Your task to perform on an android device: toggle notifications settings in the gmail app Image 0: 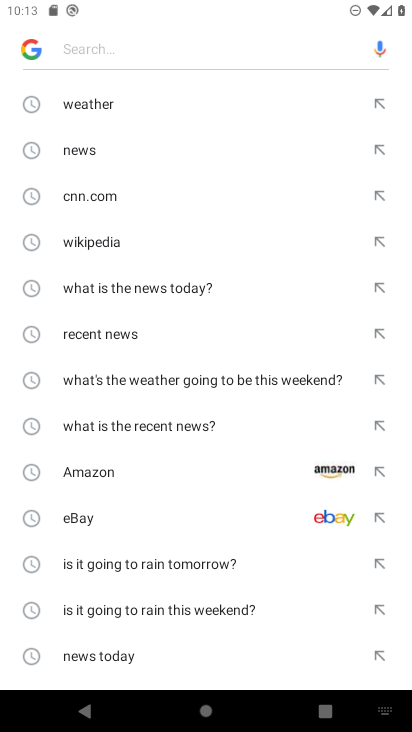
Step 0: press back button
Your task to perform on an android device: toggle notifications settings in the gmail app Image 1: 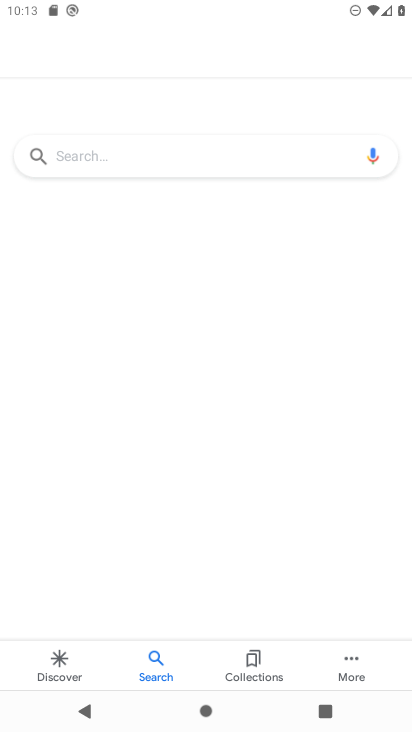
Step 1: press back button
Your task to perform on an android device: toggle notifications settings in the gmail app Image 2: 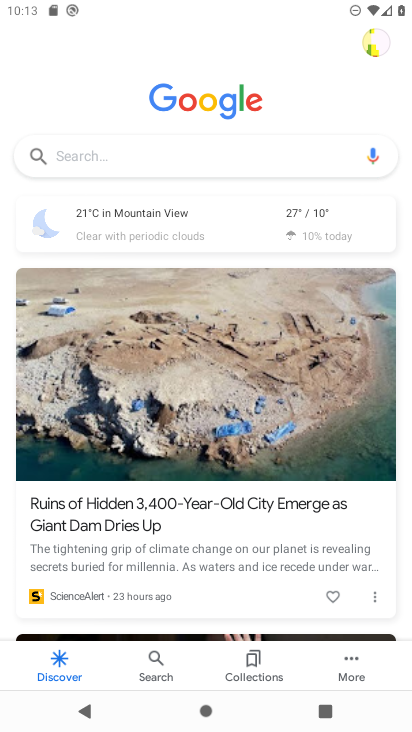
Step 2: press back button
Your task to perform on an android device: toggle notifications settings in the gmail app Image 3: 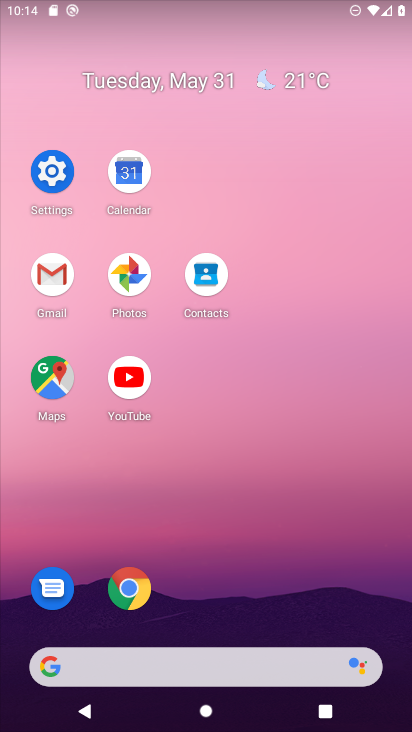
Step 3: click (49, 274)
Your task to perform on an android device: toggle notifications settings in the gmail app Image 4: 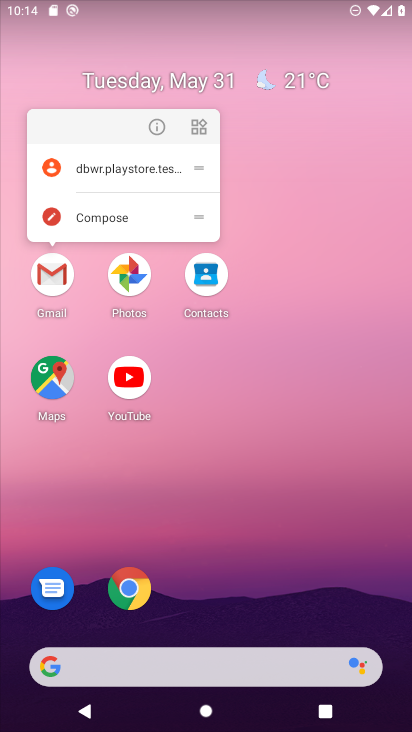
Step 4: click (49, 274)
Your task to perform on an android device: toggle notifications settings in the gmail app Image 5: 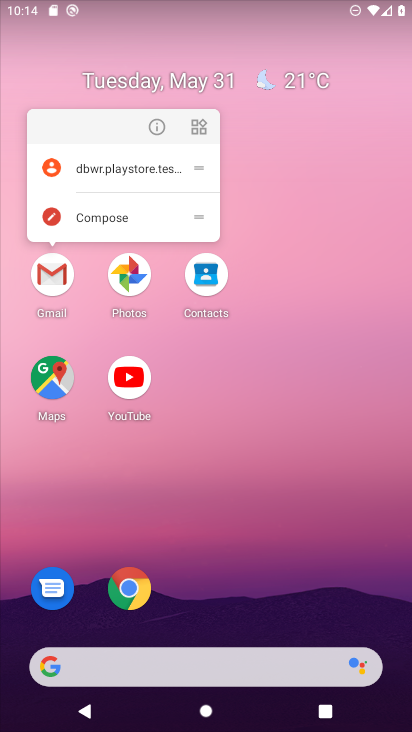
Step 5: click (53, 281)
Your task to perform on an android device: toggle notifications settings in the gmail app Image 6: 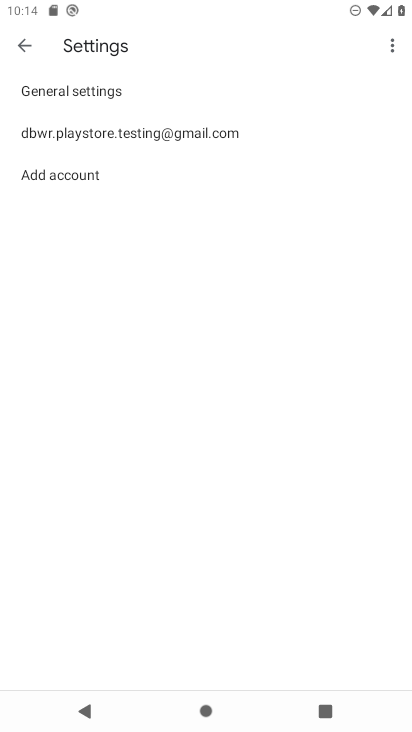
Step 6: click (27, 34)
Your task to perform on an android device: toggle notifications settings in the gmail app Image 7: 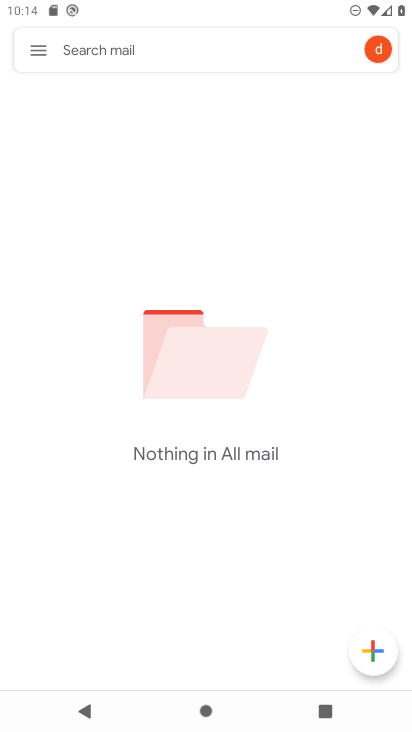
Step 7: click (25, 38)
Your task to perform on an android device: toggle notifications settings in the gmail app Image 8: 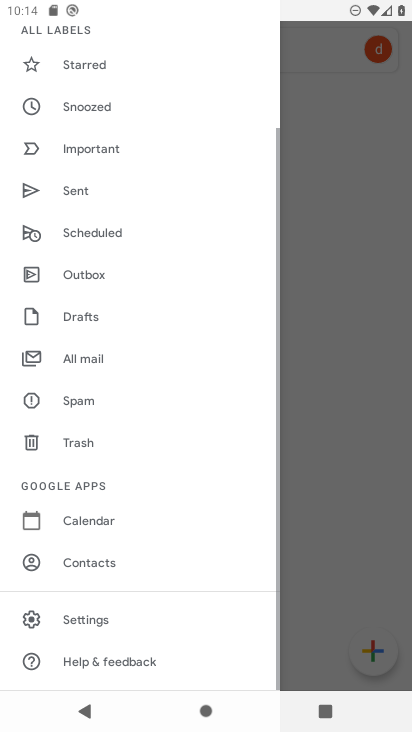
Step 8: drag from (191, 597) to (178, 258)
Your task to perform on an android device: toggle notifications settings in the gmail app Image 9: 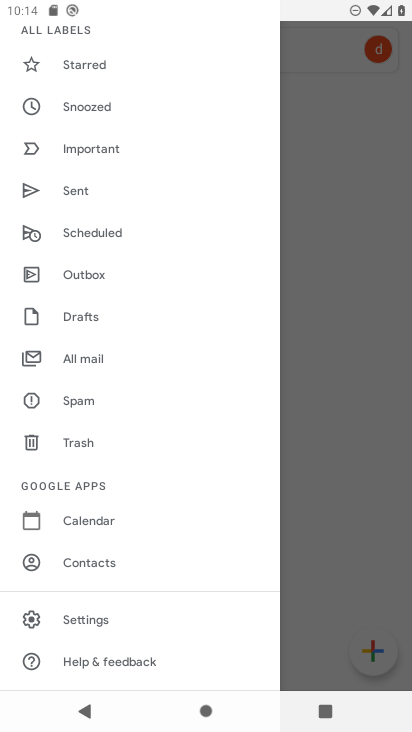
Step 9: click (97, 632)
Your task to perform on an android device: toggle notifications settings in the gmail app Image 10: 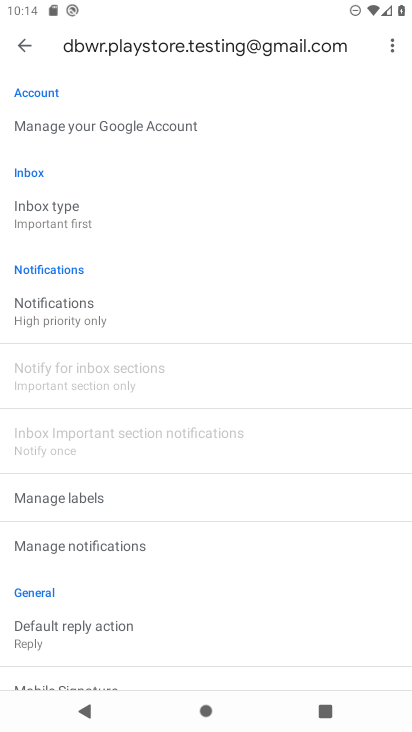
Step 10: click (105, 328)
Your task to perform on an android device: toggle notifications settings in the gmail app Image 11: 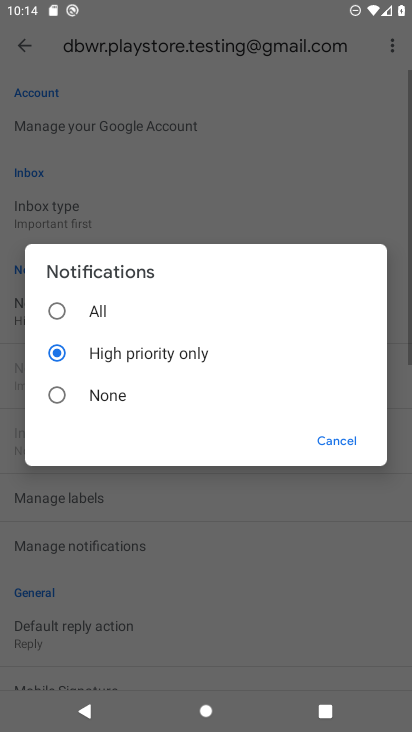
Step 11: click (97, 308)
Your task to perform on an android device: toggle notifications settings in the gmail app Image 12: 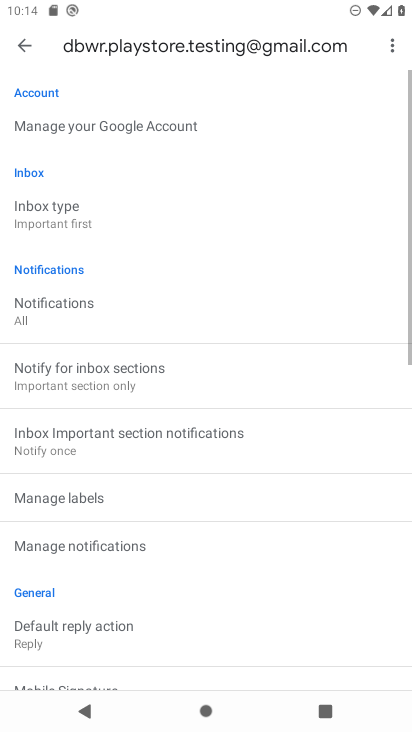
Step 12: task complete